Your task to perform on an android device: Open Google Maps and go to "Timeline" Image 0: 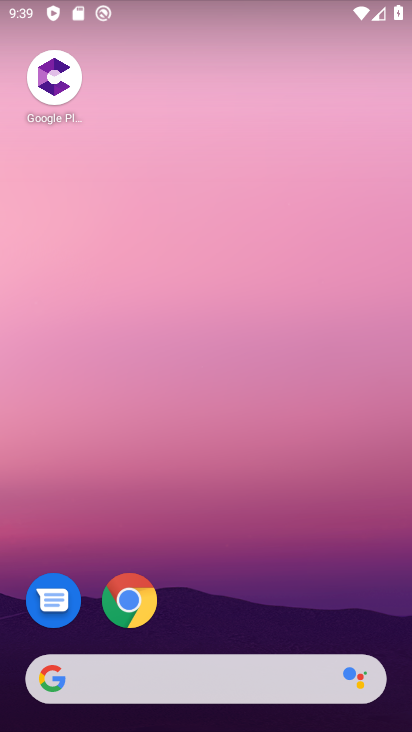
Step 0: drag from (262, 623) to (155, 64)
Your task to perform on an android device: Open Google Maps and go to "Timeline" Image 1: 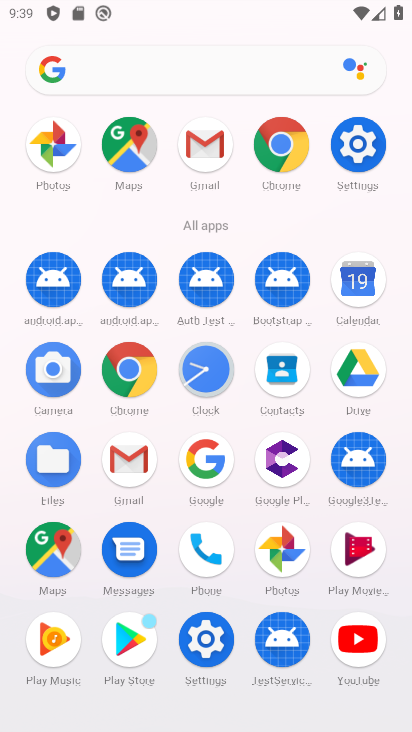
Step 1: click (123, 157)
Your task to perform on an android device: Open Google Maps and go to "Timeline" Image 2: 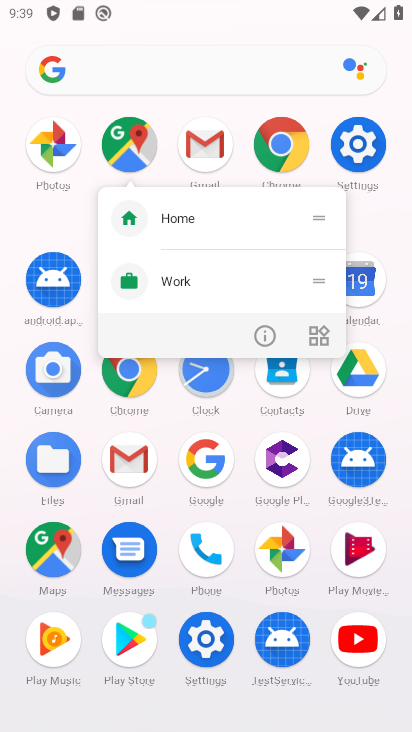
Step 2: click (123, 153)
Your task to perform on an android device: Open Google Maps and go to "Timeline" Image 3: 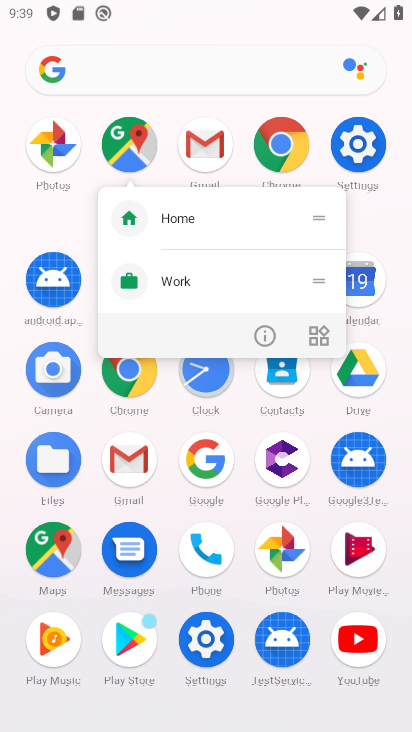
Step 3: click (127, 156)
Your task to perform on an android device: Open Google Maps and go to "Timeline" Image 4: 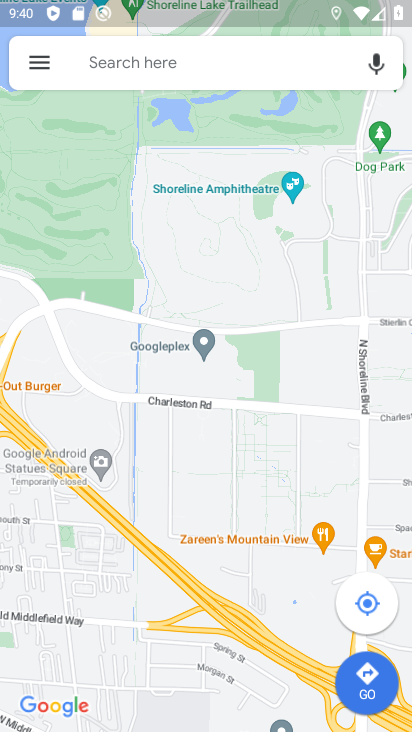
Step 4: click (34, 67)
Your task to perform on an android device: Open Google Maps and go to "Timeline" Image 5: 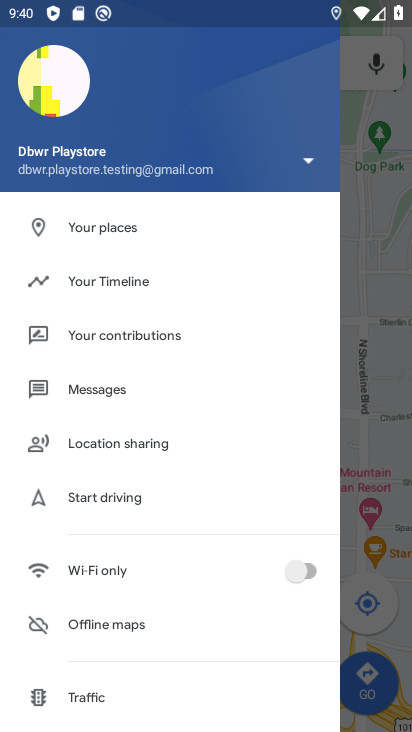
Step 5: click (131, 279)
Your task to perform on an android device: Open Google Maps and go to "Timeline" Image 6: 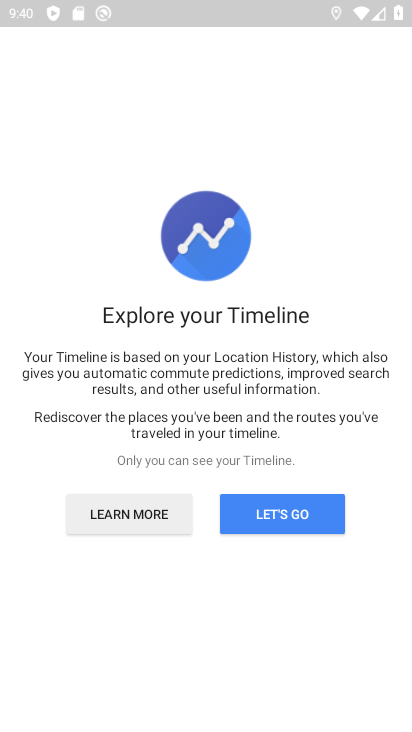
Step 6: task complete